Your task to perform on an android device: open app "DoorDash - Food Delivery" (install if not already installed) Image 0: 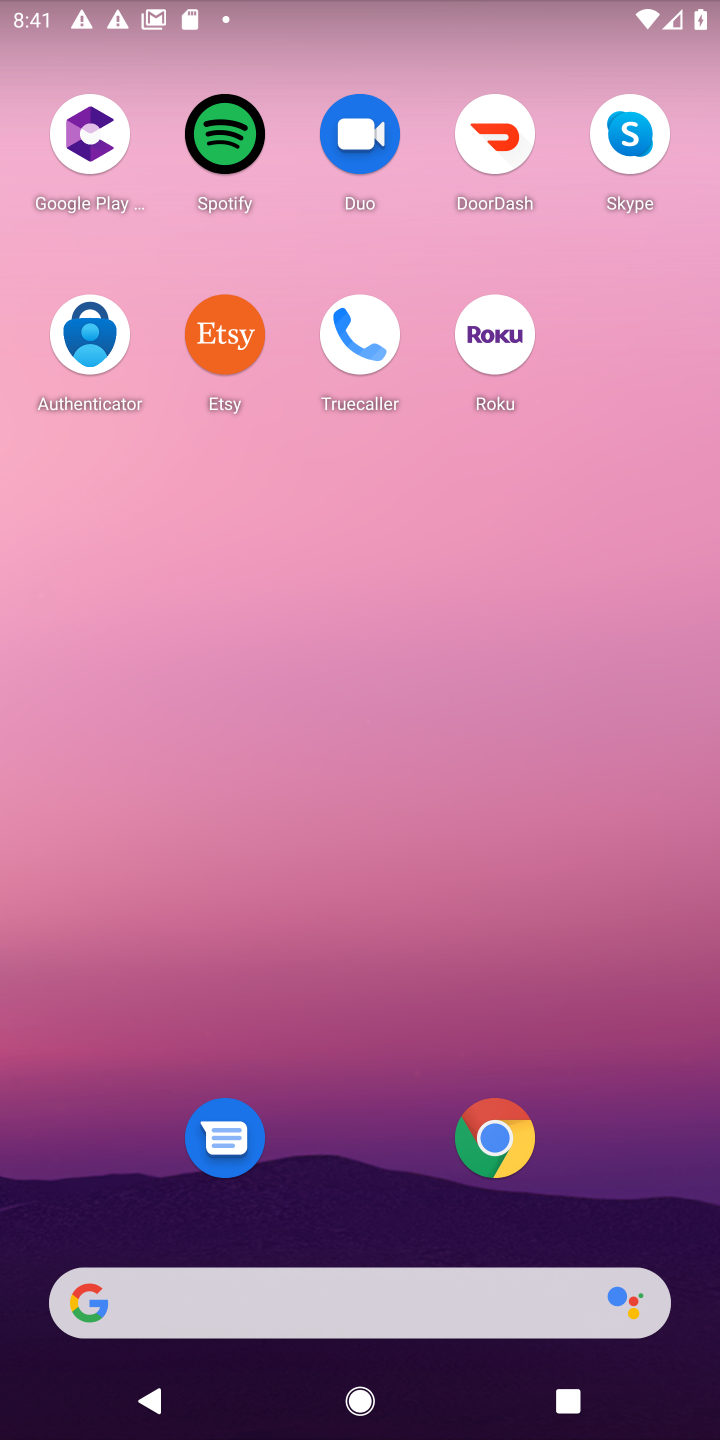
Step 0: drag from (380, 1216) to (394, 1)
Your task to perform on an android device: open app "DoorDash - Food Delivery" (install if not already installed) Image 1: 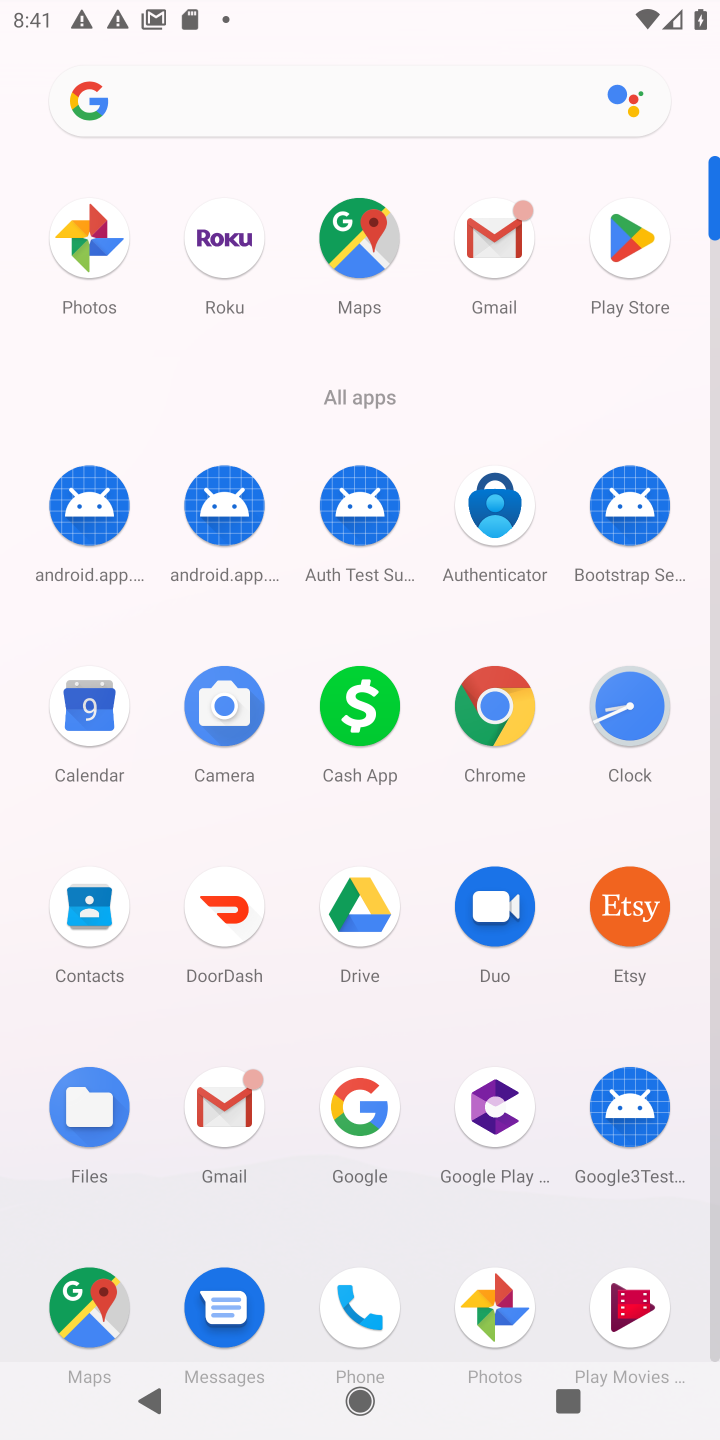
Step 1: click (250, 926)
Your task to perform on an android device: open app "DoorDash - Food Delivery" (install if not already installed) Image 2: 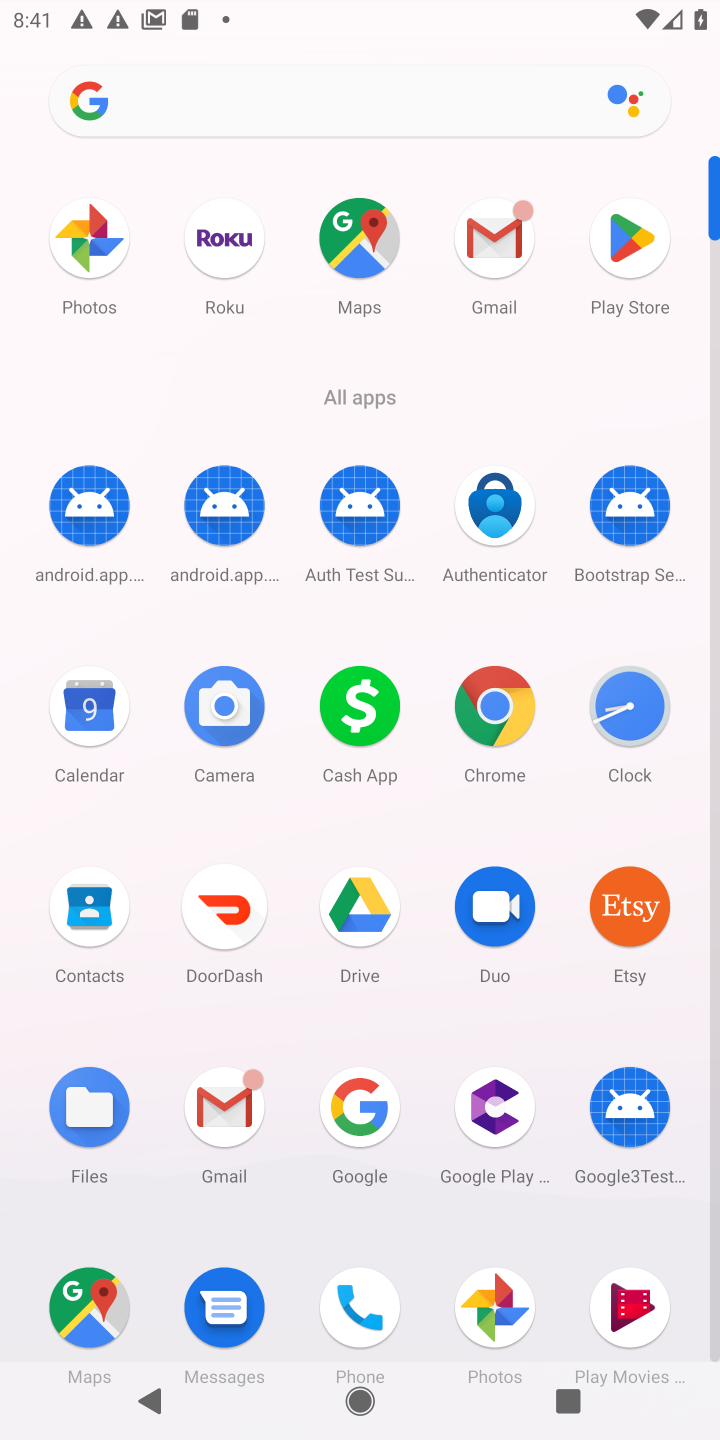
Step 2: task complete